Your task to perform on an android device: turn off improve location accuracy Image 0: 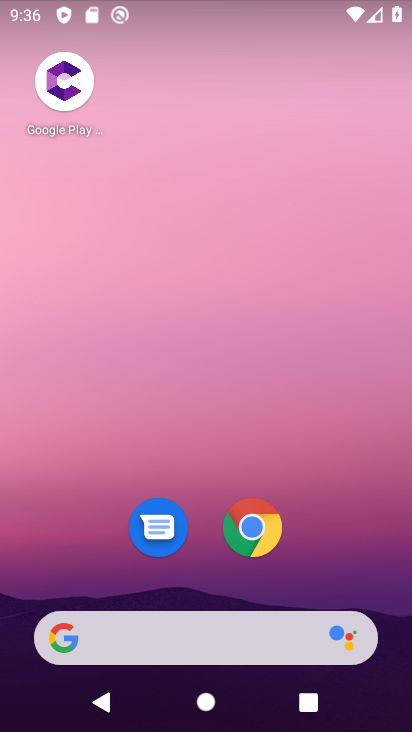
Step 0: drag from (395, 628) to (268, 194)
Your task to perform on an android device: turn off improve location accuracy Image 1: 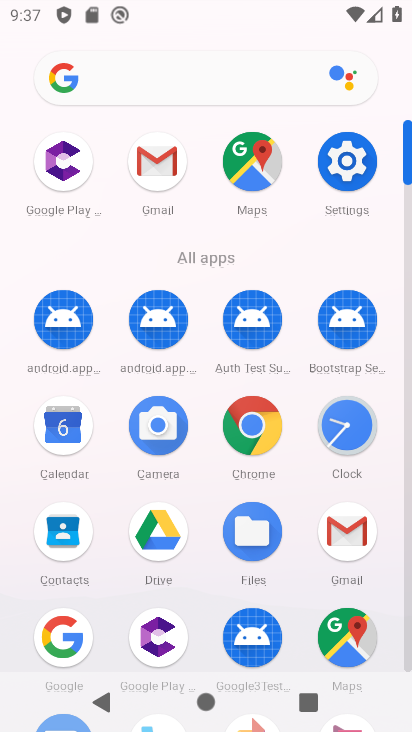
Step 1: click (351, 161)
Your task to perform on an android device: turn off improve location accuracy Image 2: 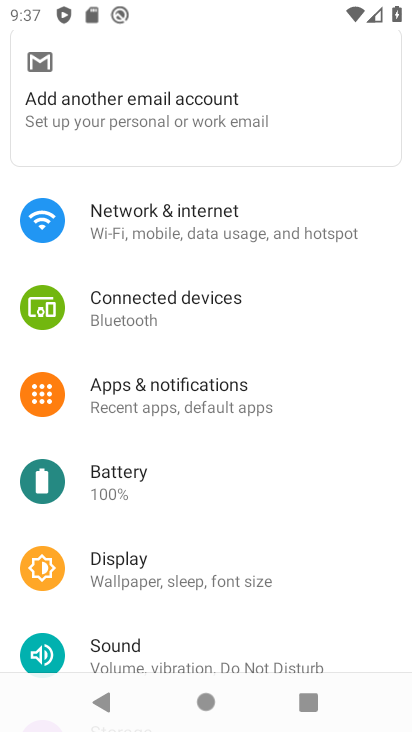
Step 2: drag from (272, 613) to (219, 174)
Your task to perform on an android device: turn off improve location accuracy Image 3: 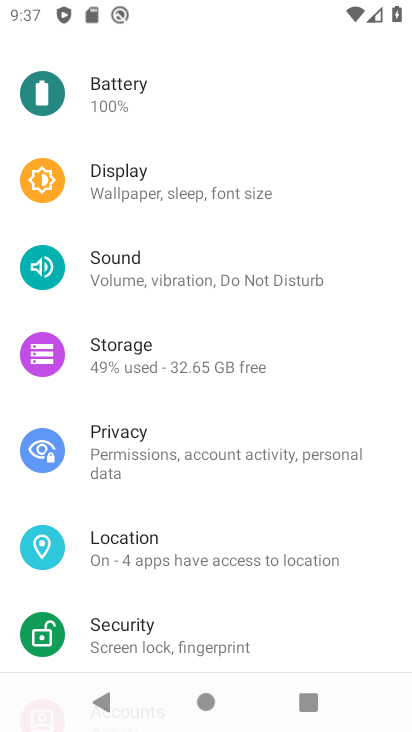
Step 3: drag from (219, 174) to (180, 1)
Your task to perform on an android device: turn off improve location accuracy Image 4: 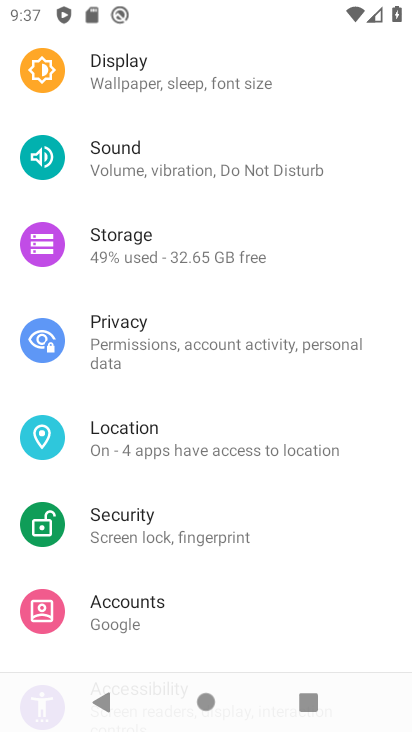
Step 4: click (129, 448)
Your task to perform on an android device: turn off improve location accuracy Image 5: 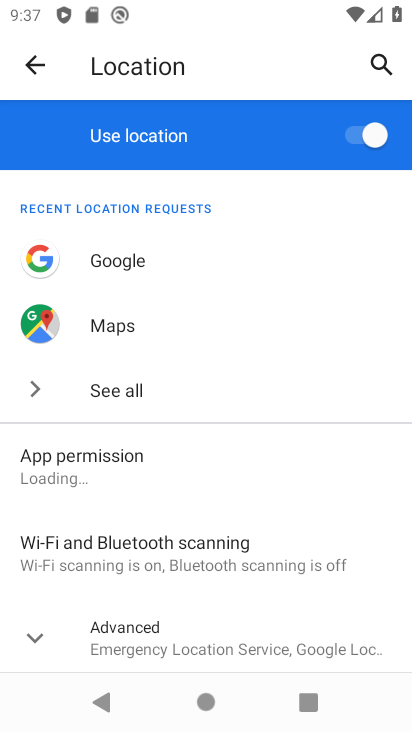
Step 5: drag from (178, 540) to (160, 319)
Your task to perform on an android device: turn off improve location accuracy Image 6: 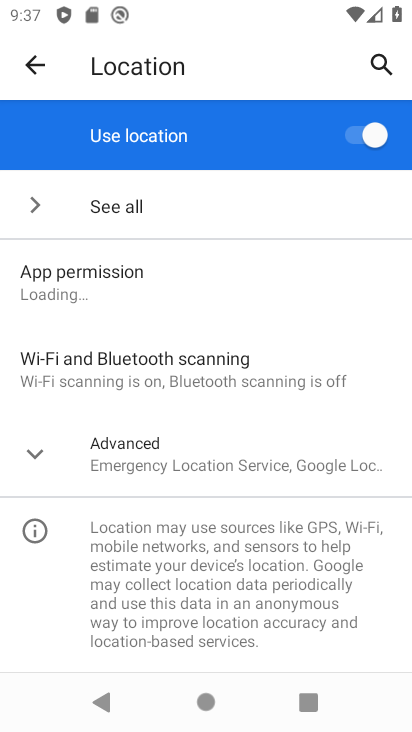
Step 6: click (191, 435)
Your task to perform on an android device: turn off improve location accuracy Image 7: 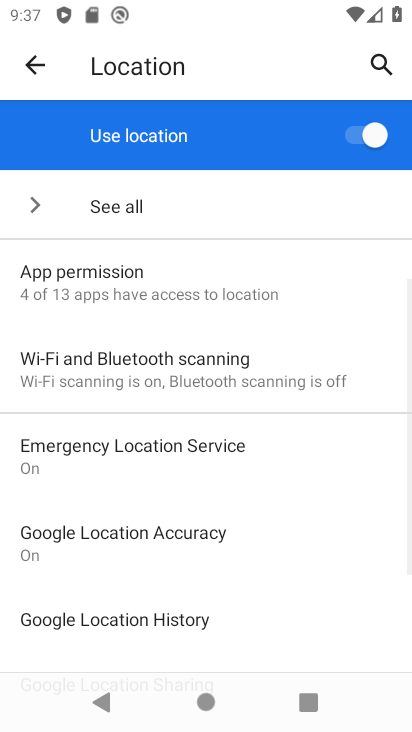
Step 7: click (190, 518)
Your task to perform on an android device: turn off improve location accuracy Image 8: 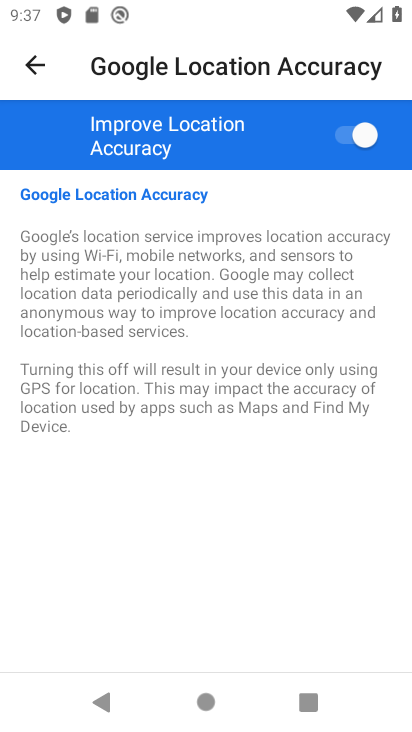
Step 8: click (361, 150)
Your task to perform on an android device: turn off improve location accuracy Image 9: 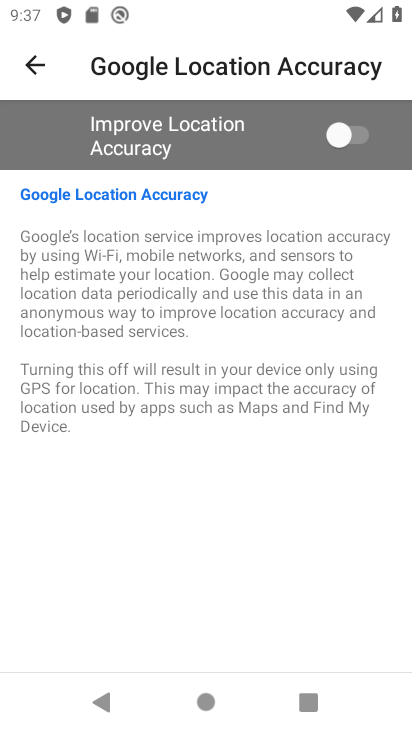
Step 9: task complete